Your task to perform on an android device: empty trash in google photos Image 0: 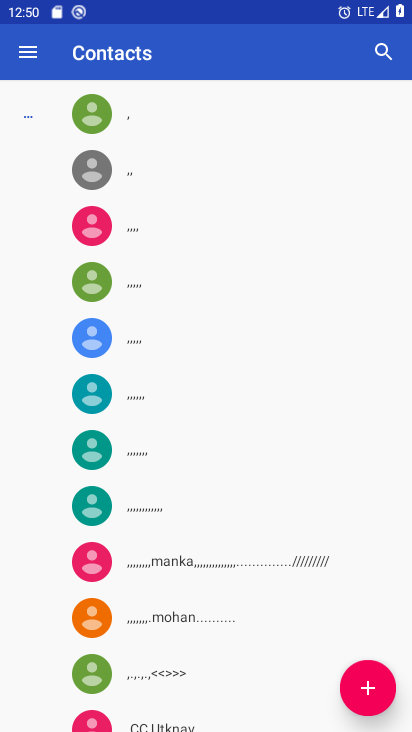
Step 0: press home button
Your task to perform on an android device: empty trash in google photos Image 1: 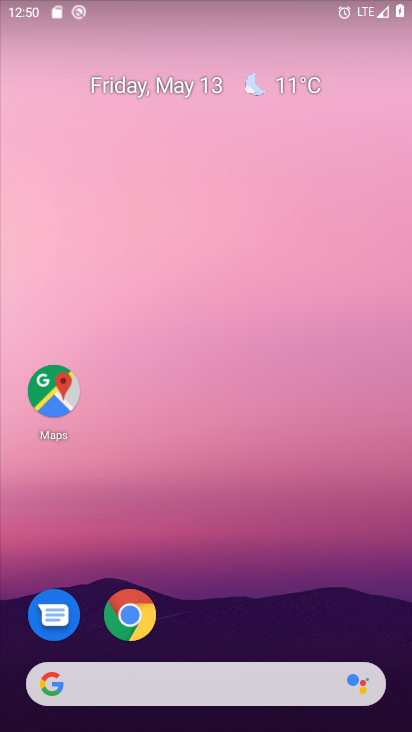
Step 1: drag from (234, 557) to (243, 91)
Your task to perform on an android device: empty trash in google photos Image 2: 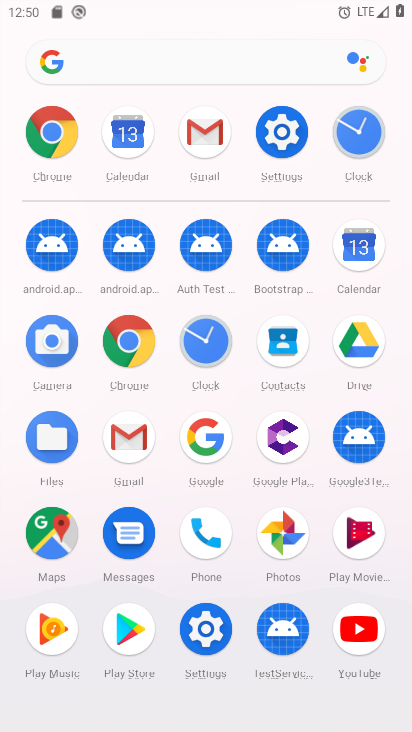
Step 2: click (278, 536)
Your task to perform on an android device: empty trash in google photos Image 3: 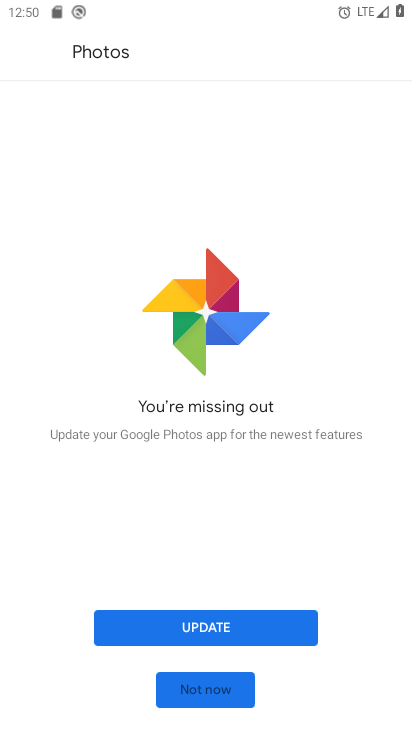
Step 3: click (201, 685)
Your task to perform on an android device: empty trash in google photos Image 4: 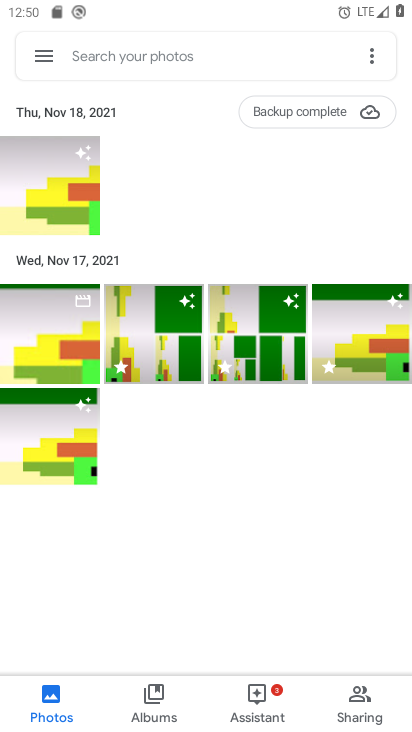
Step 4: click (29, 50)
Your task to perform on an android device: empty trash in google photos Image 5: 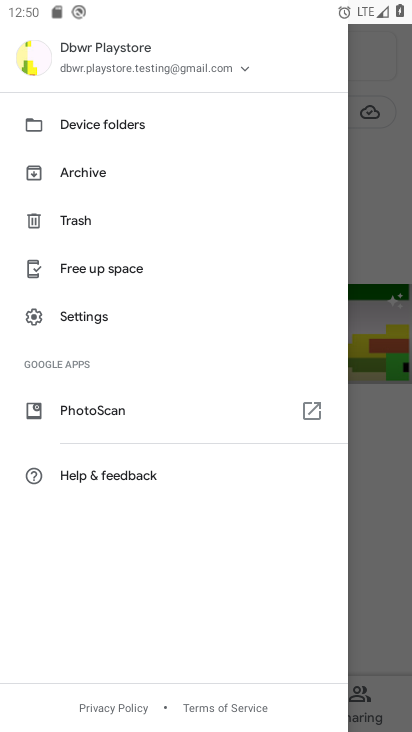
Step 5: click (78, 213)
Your task to perform on an android device: empty trash in google photos Image 6: 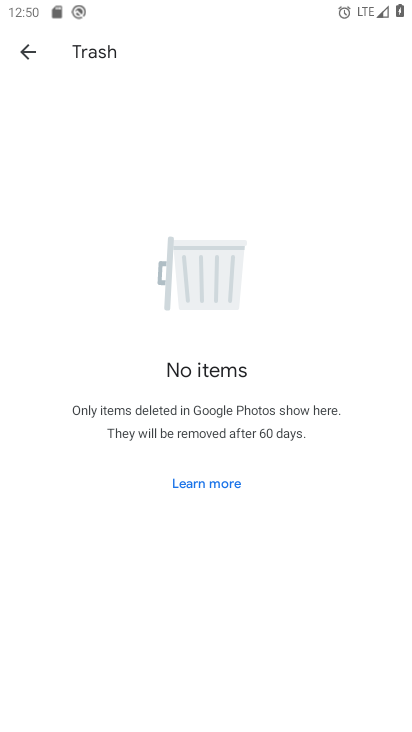
Step 6: task complete